Your task to perform on an android device: What's on my calendar tomorrow? Image 0: 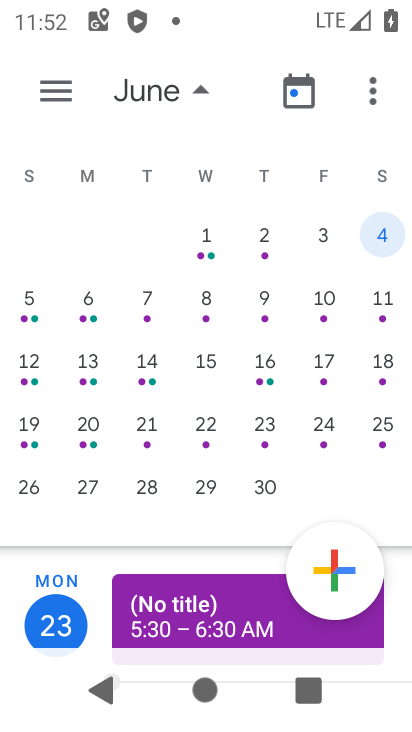
Step 0: press home button
Your task to perform on an android device: What's on my calendar tomorrow? Image 1: 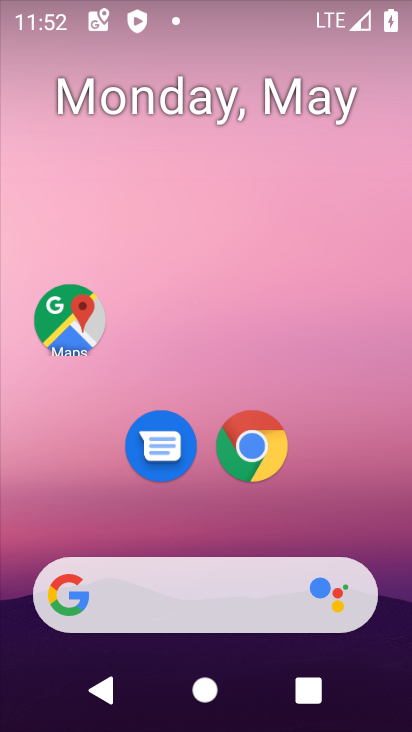
Step 1: drag from (363, 522) to (309, 27)
Your task to perform on an android device: What's on my calendar tomorrow? Image 2: 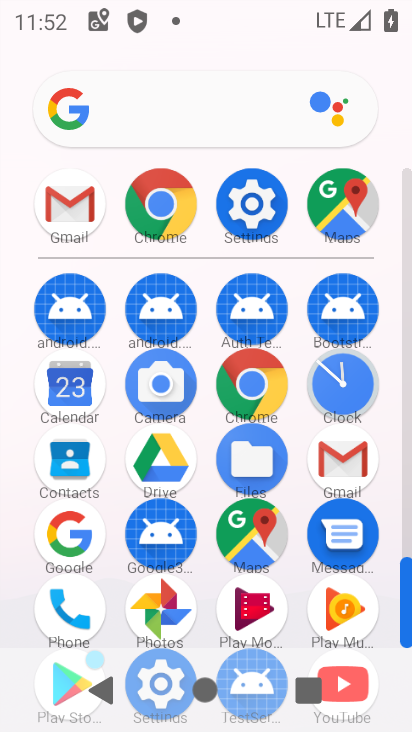
Step 2: click (71, 372)
Your task to perform on an android device: What's on my calendar tomorrow? Image 3: 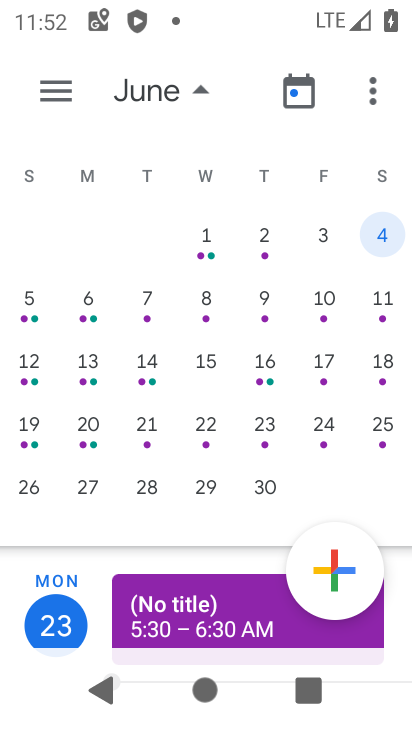
Step 3: click (17, 310)
Your task to perform on an android device: What's on my calendar tomorrow? Image 4: 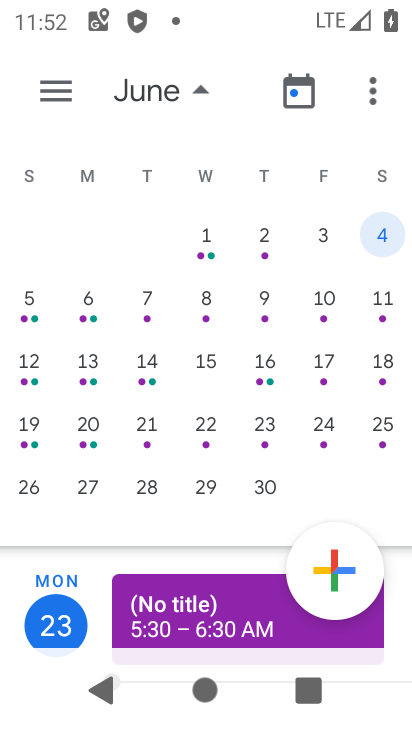
Step 4: click (31, 314)
Your task to perform on an android device: What's on my calendar tomorrow? Image 5: 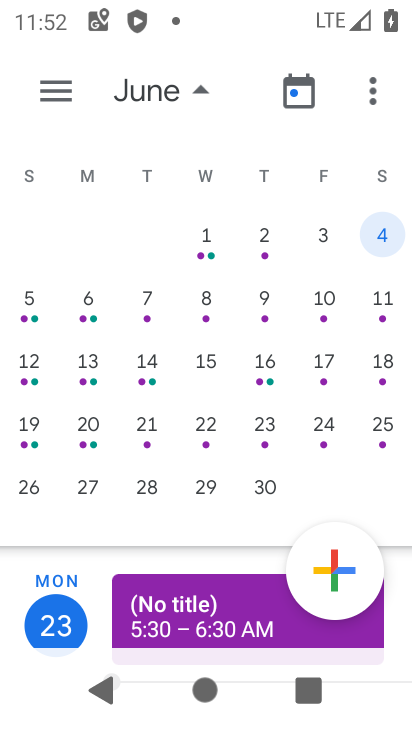
Step 5: click (32, 311)
Your task to perform on an android device: What's on my calendar tomorrow? Image 6: 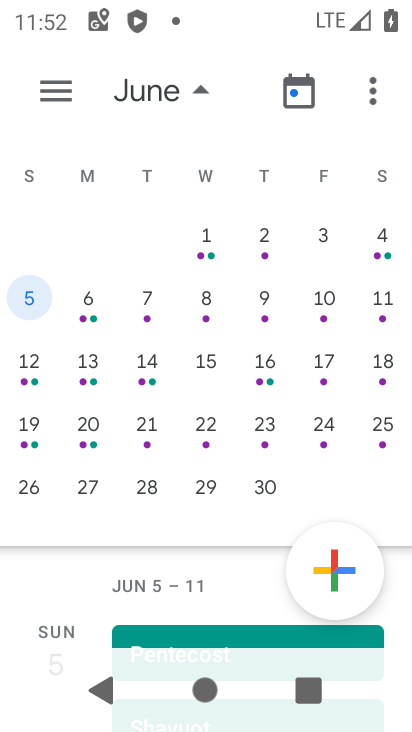
Step 6: task complete